Your task to perform on an android device: open app "YouTube Kids" (install if not already installed) Image 0: 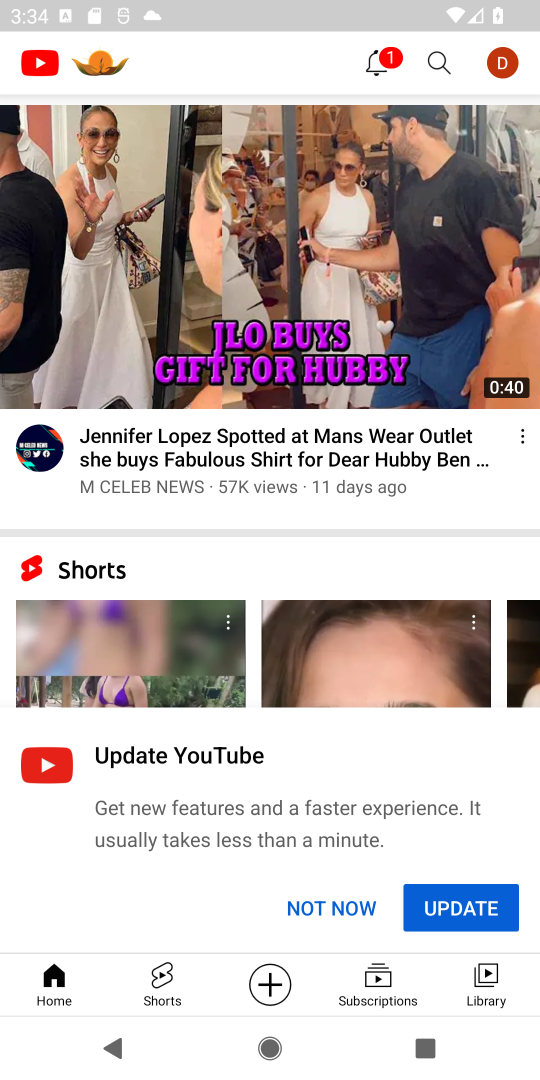
Step 0: press home button
Your task to perform on an android device: open app "YouTube Kids" (install if not already installed) Image 1: 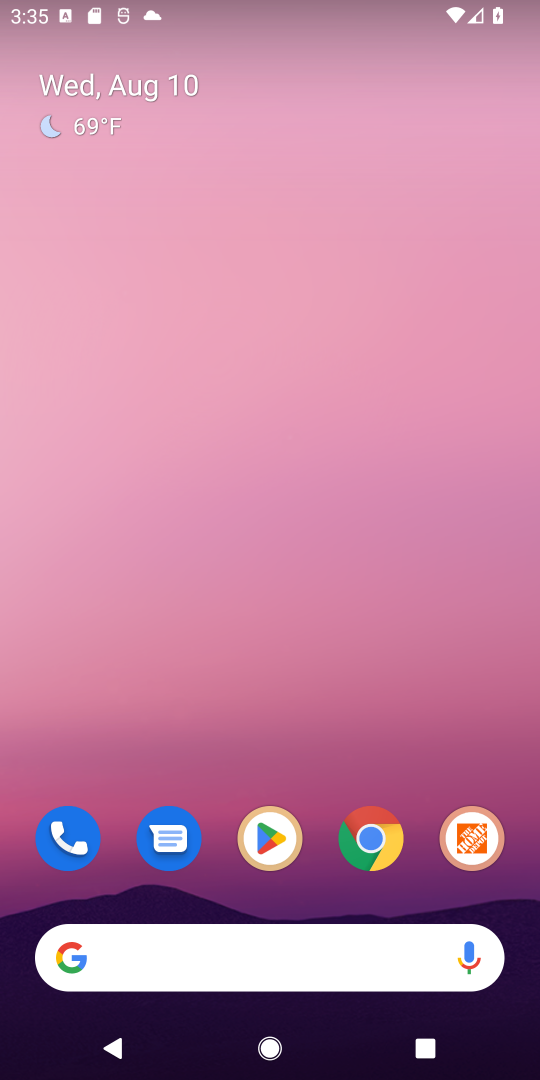
Step 1: click (269, 844)
Your task to perform on an android device: open app "YouTube Kids" (install if not already installed) Image 2: 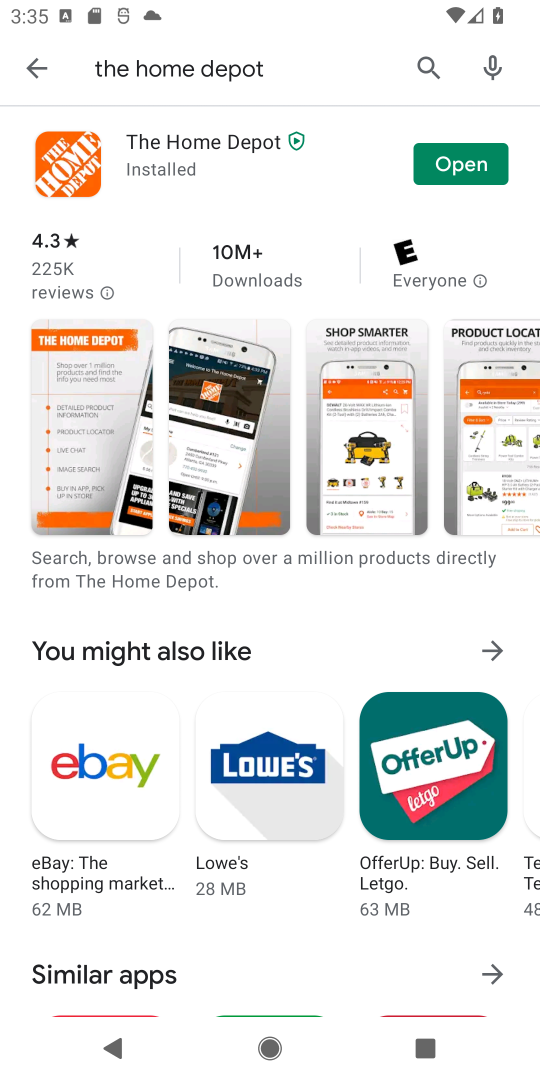
Step 2: click (430, 62)
Your task to perform on an android device: open app "YouTube Kids" (install if not already installed) Image 3: 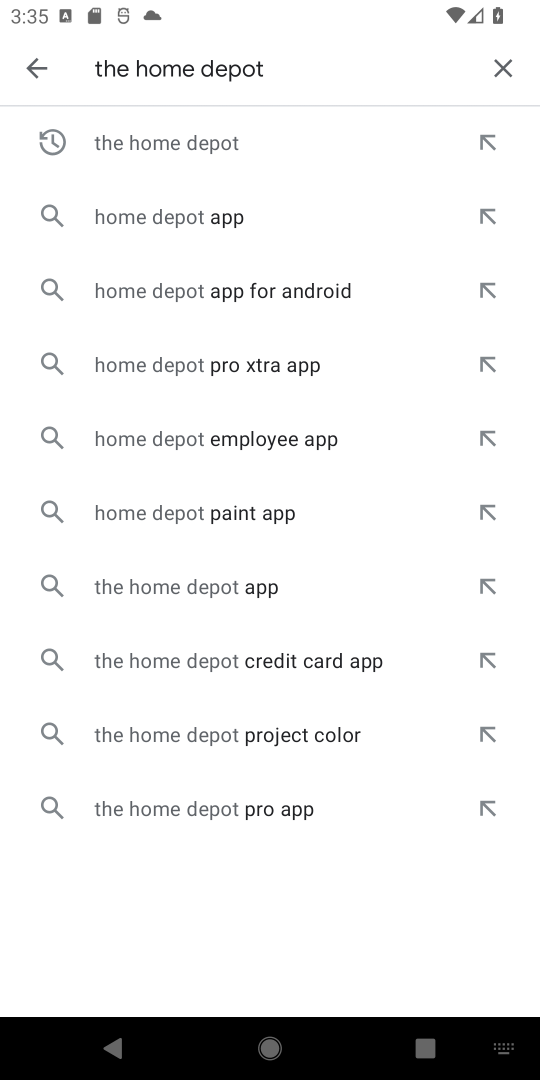
Step 3: click (505, 64)
Your task to perform on an android device: open app "YouTube Kids" (install if not already installed) Image 4: 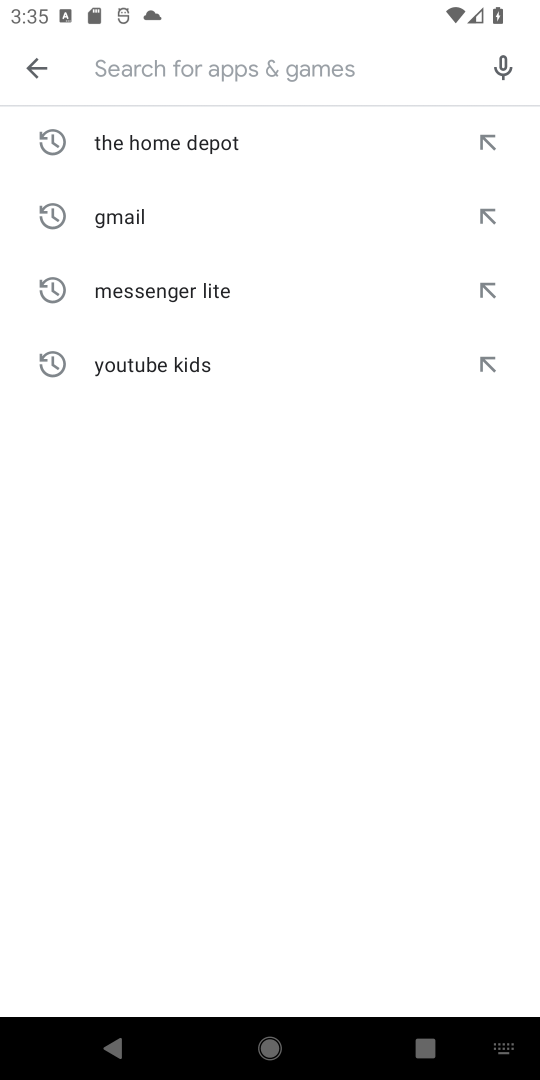
Step 4: type "YouTube Kids"
Your task to perform on an android device: open app "YouTube Kids" (install if not already installed) Image 5: 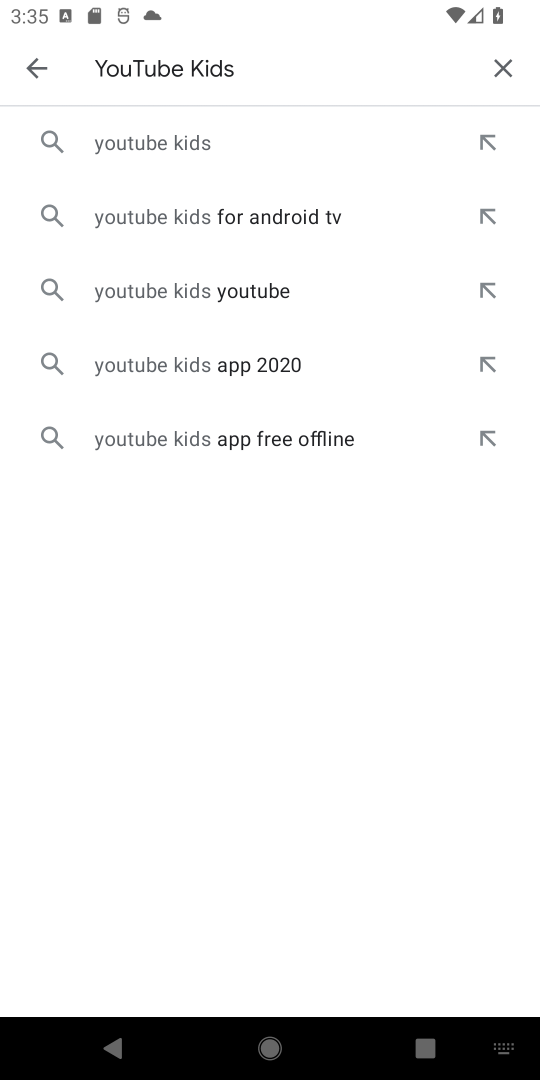
Step 5: click (197, 141)
Your task to perform on an android device: open app "YouTube Kids" (install if not already installed) Image 6: 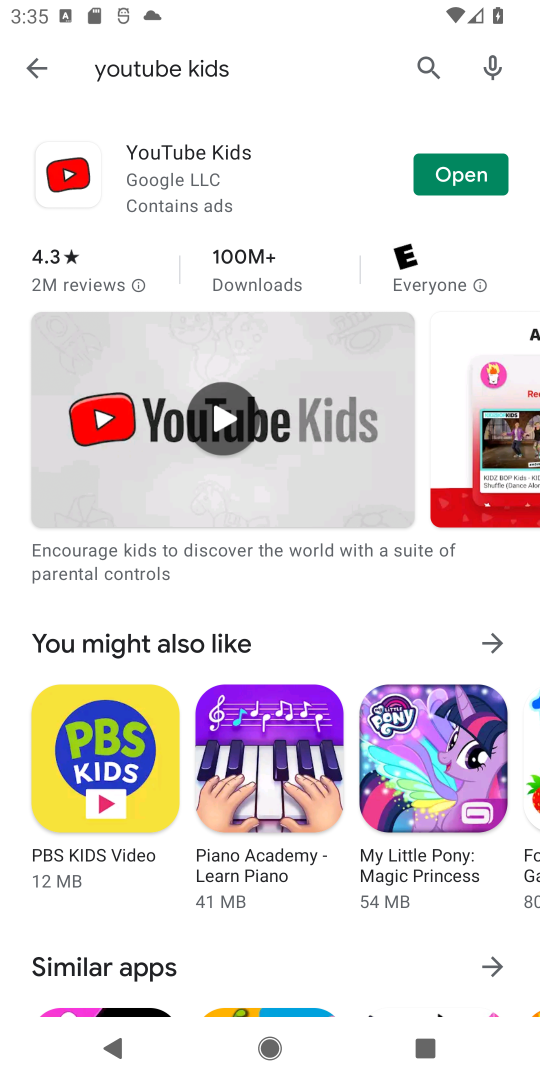
Step 6: click (466, 172)
Your task to perform on an android device: open app "YouTube Kids" (install if not already installed) Image 7: 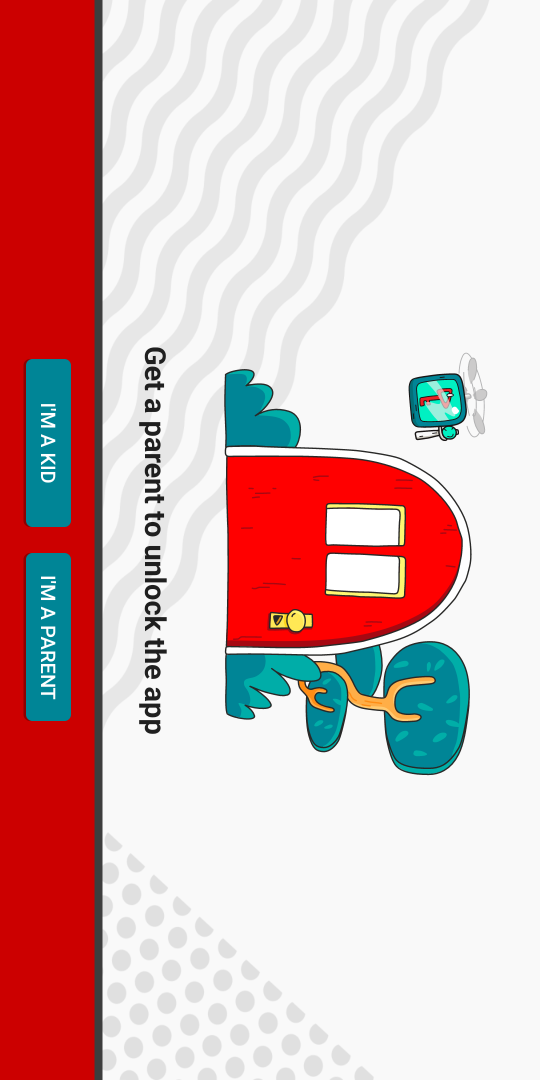
Step 7: task complete